Your task to perform on an android device: Search for Italian restaurants on Maps Image 0: 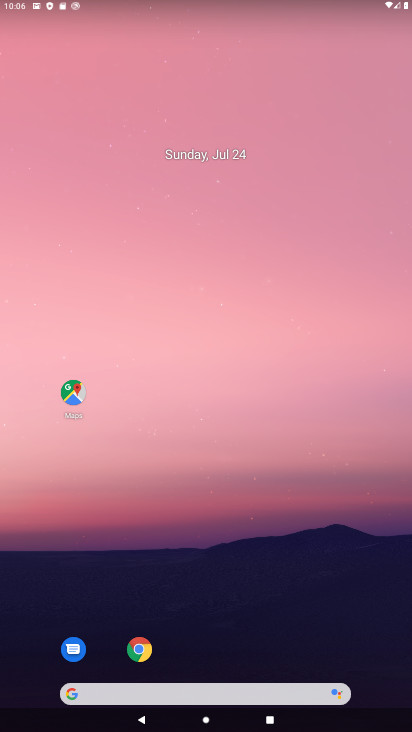
Step 0: drag from (351, 317) to (305, 31)
Your task to perform on an android device: Search for Italian restaurants on Maps Image 1: 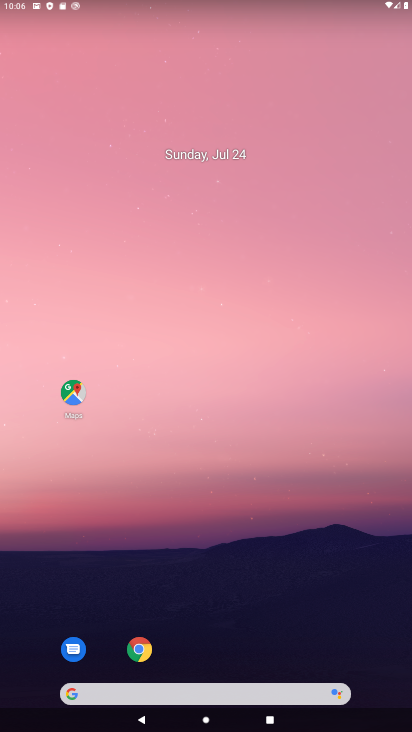
Step 1: drag from (268, 617) to (145, 0)
Your task to perform on an android device: Search for Italian restaurants on Maps Image 2: 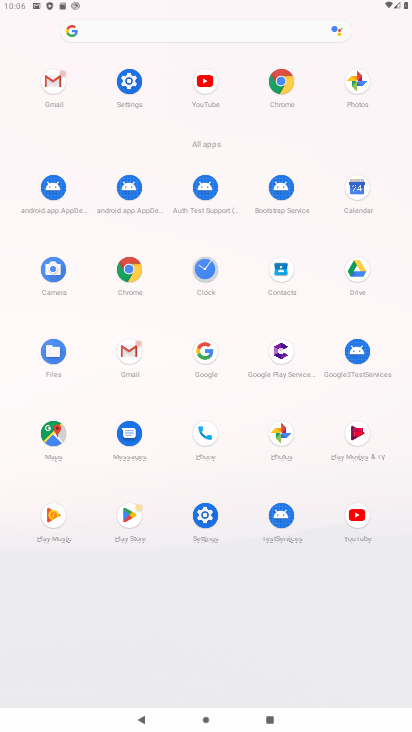
Step 2: click (55, 436)
Your task to perform on an android device: Search for Italian restaurants on Maps Image 3: 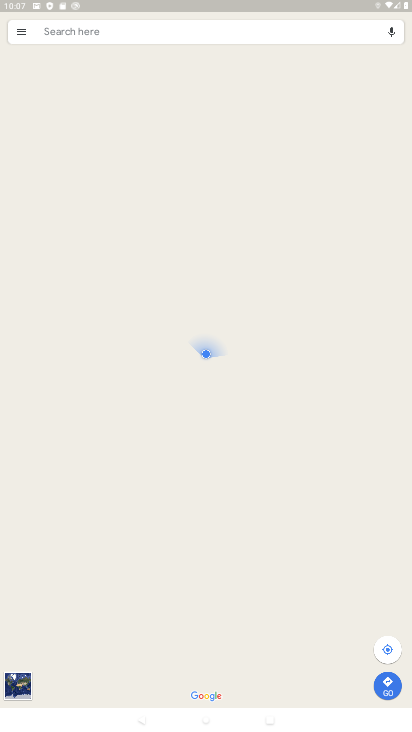
Step 3: click (159, 29)
Your task to perform on an android device: Search for Italian restaurants on Maps Image 4: 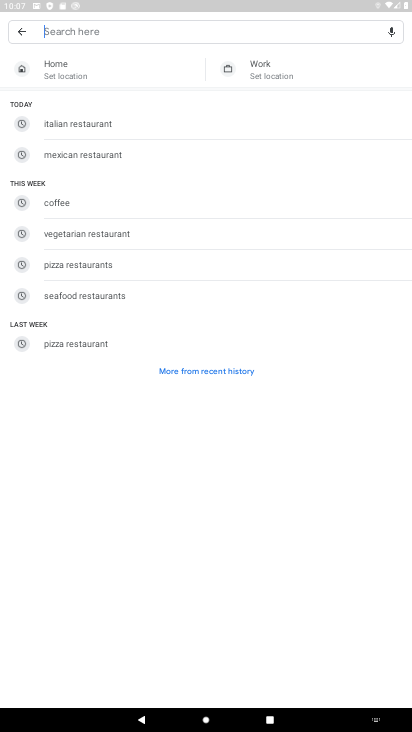
Step 4: type "Italian restaurants"
Your task to perform on an android device: Search for Italian restaurants on Maps Image 5: 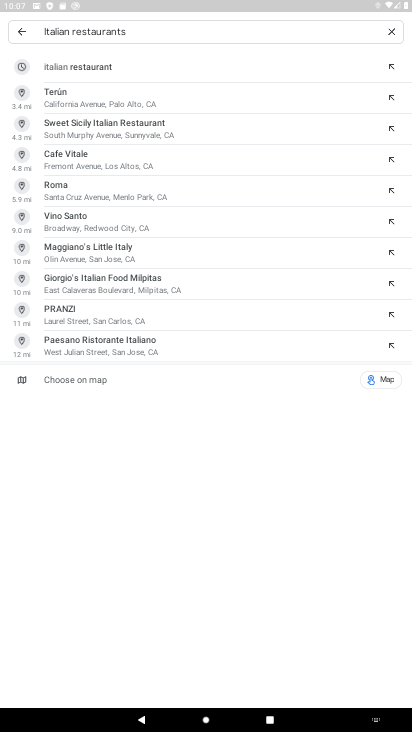
Step 5: click (152, 60)
Your task to perform on an android device: Search for Italian restaurants on Maps Image 6: 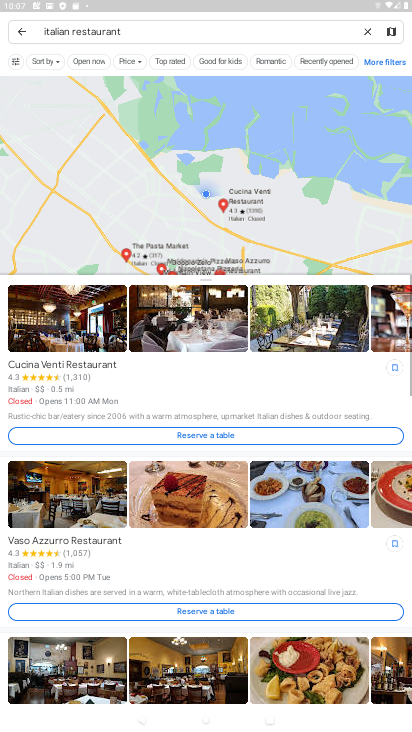
Step 6: task complete